Your task to perform on an android device: toggle show notifications on the lock screen Image 0: 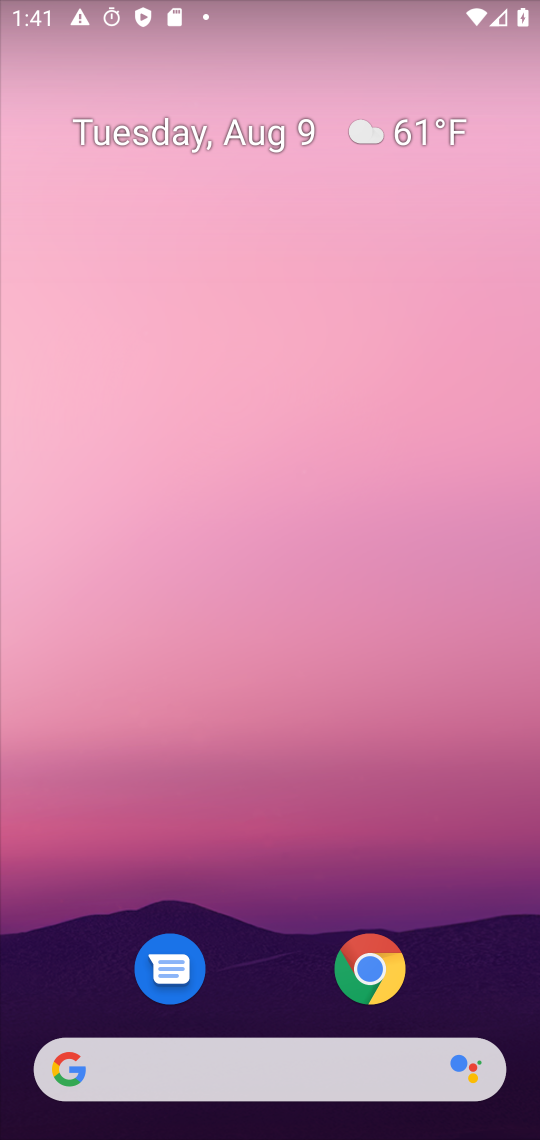
Step 0: drag from (355, 1099) to (307, 389)
Your task to perform on an android device: toggle show notifications on the lock screen Image 1: 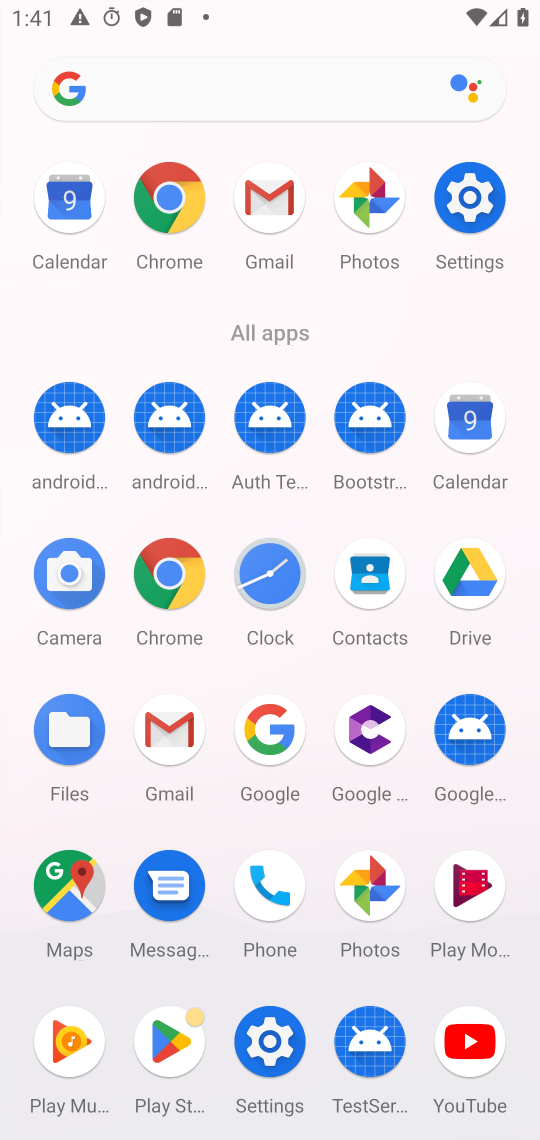
Step 1: click (252, 1035)
Your task to perform on an android device: toggle show notifications on the lock screen Image 2: 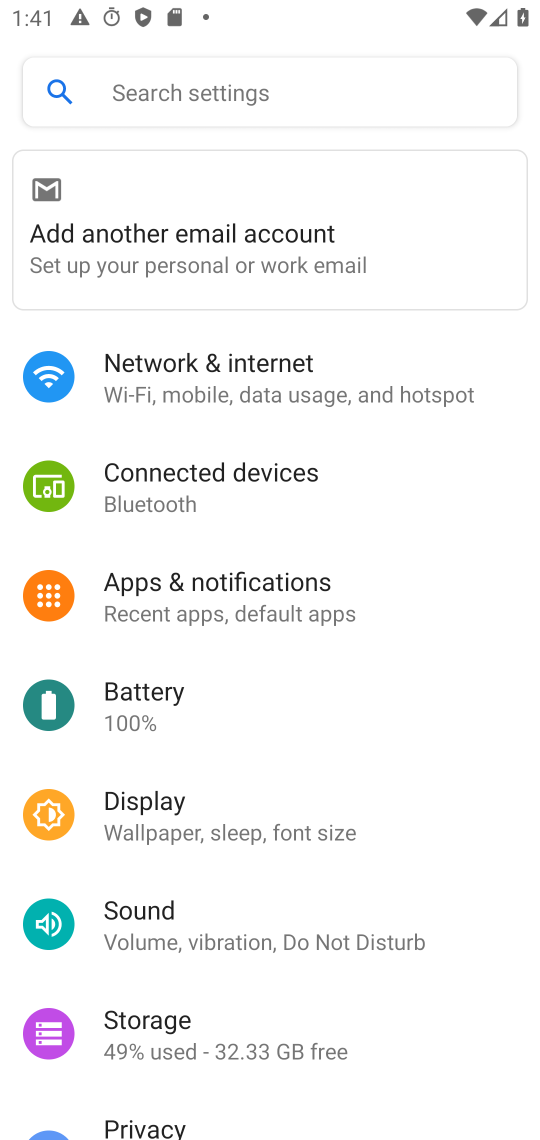
Step 2: click (227, 76)
Your task to perform on an android device: toggle show notifications on the lock screen Image 3: 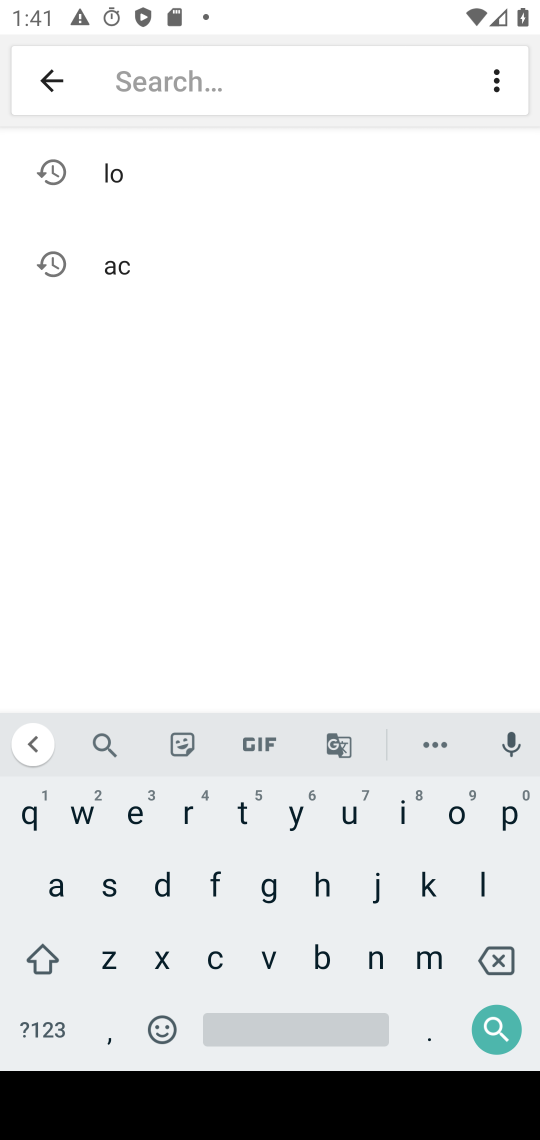
Step 3: click (375, 946)
Your task to perform on an android device: toggle show notifications on the lock screen Image 4: 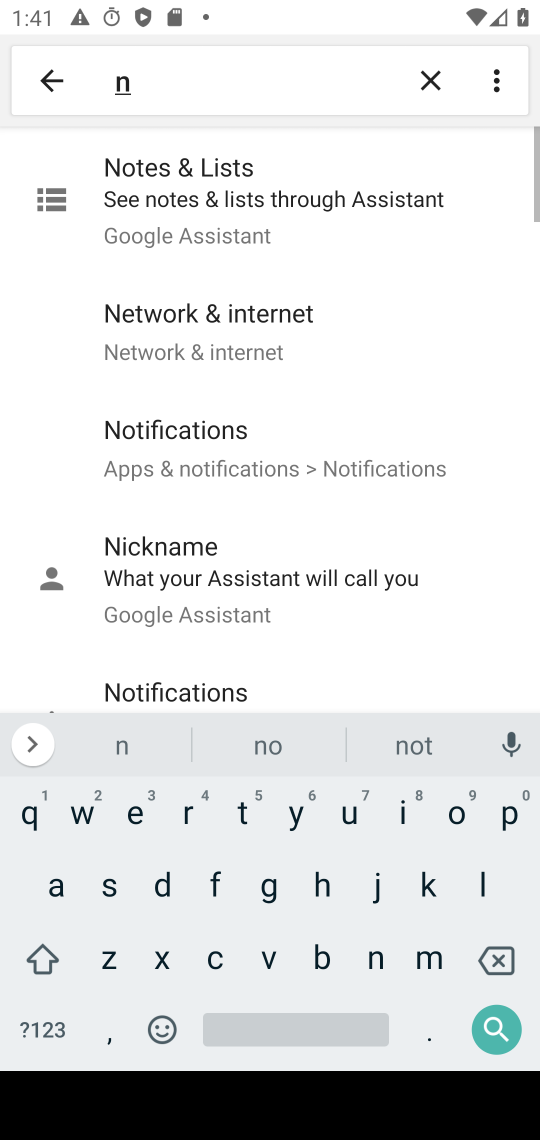
Step 4: click (455, 813)
Your task to perform on an android device: toggle show notifications on the lock screen Image 5: 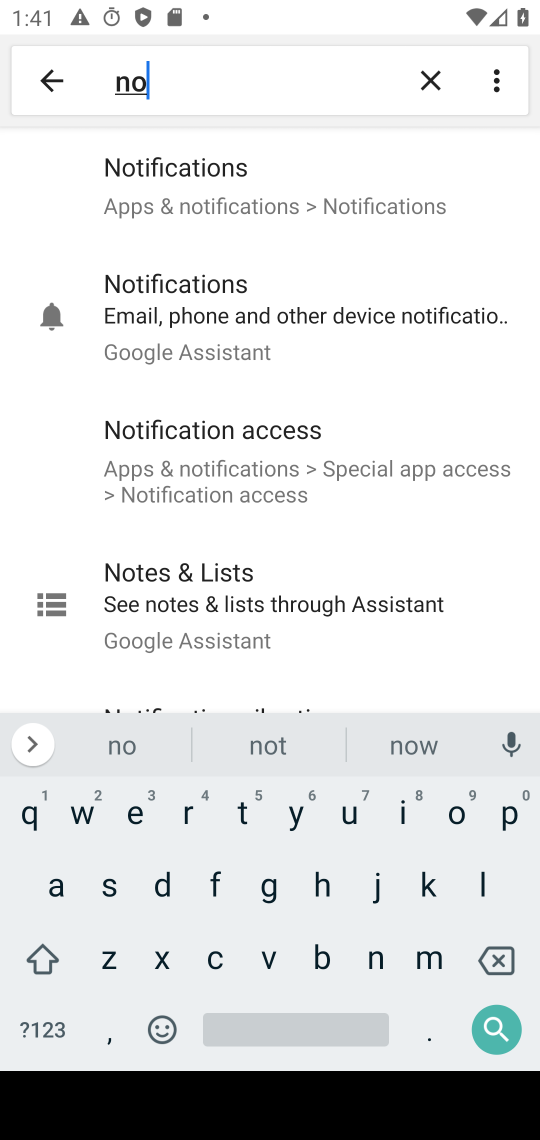
Step 5: click (292, 179)
Your task to perform on an android device: toggle show notifications on the lock screen Image 6: 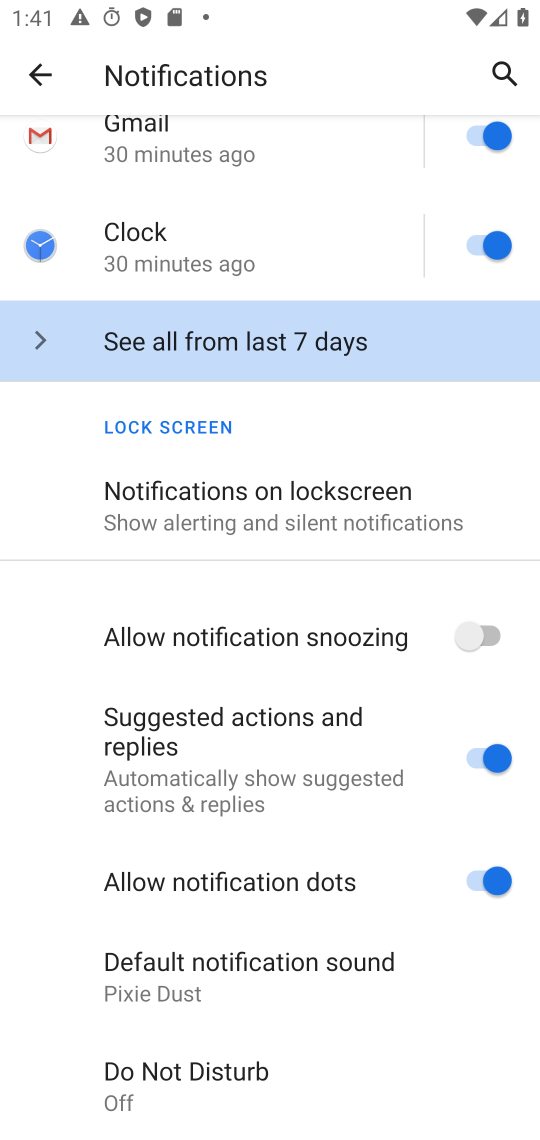
Step 6: click (197, 487)
Your task to perform on an android device: toggle show notifications on the lock screen Image 7: 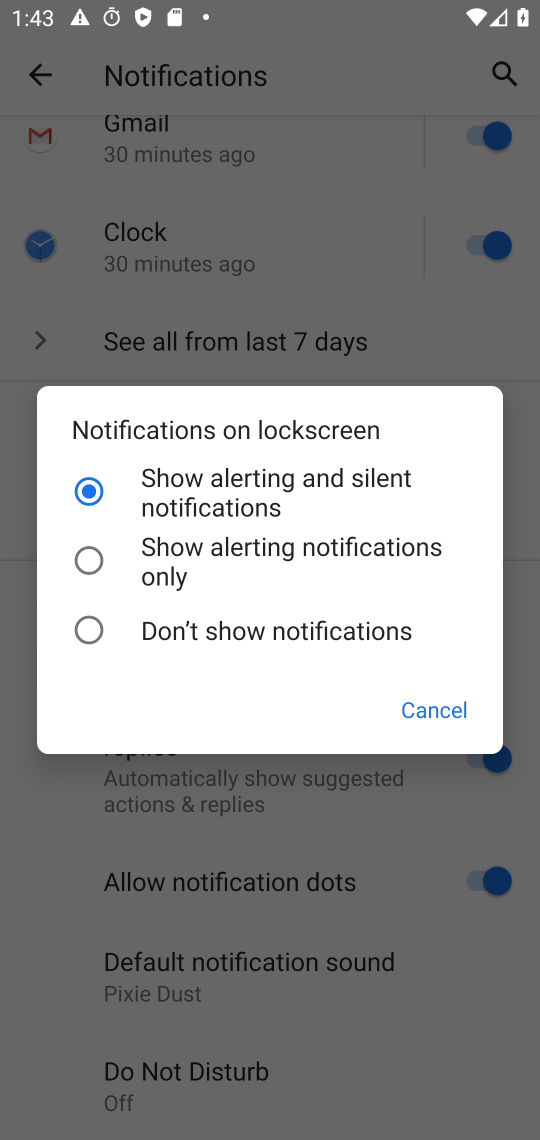
Step 7: task complete